Your task to perform on an android device: toggle notifications settings in the gmail app Image 0: 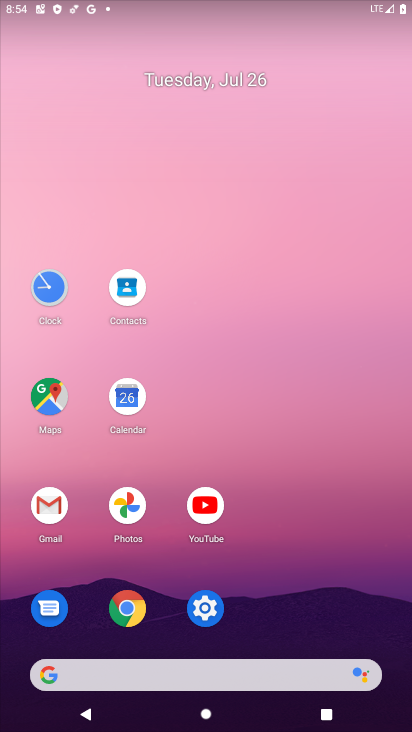
Step 0: click (45, 508)
Your task to perform on an android device: toggle notifications settings in the gmail app Image 1: 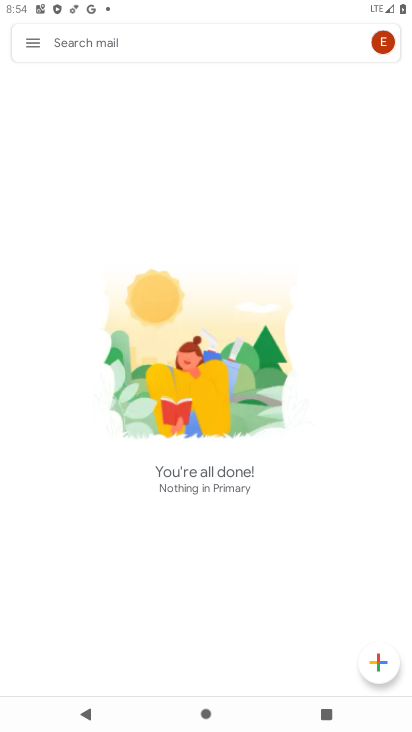
Step 1: click (39, 42)
Your task to perform on an android device: toggle notifications settings in the gmail app Image 2: 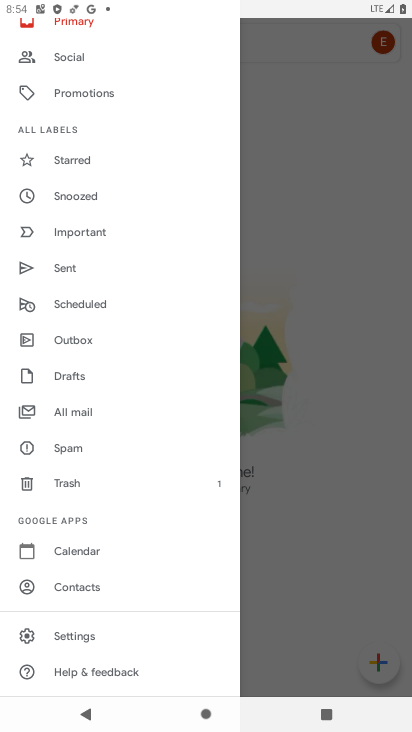
Step 2: click (67, 636)
Your task to perform on an android device: toggle notifications settings in the gmail app Image 3: 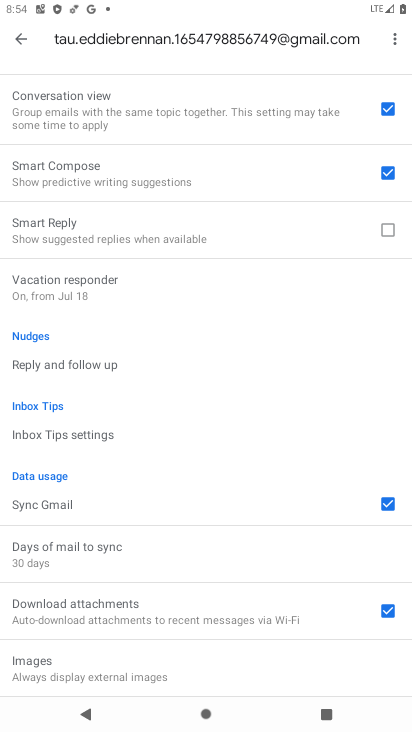
Step 3: click (18, 32)
Your task to perform on an android device: toggle notifications settings in the gmail app Image 4: 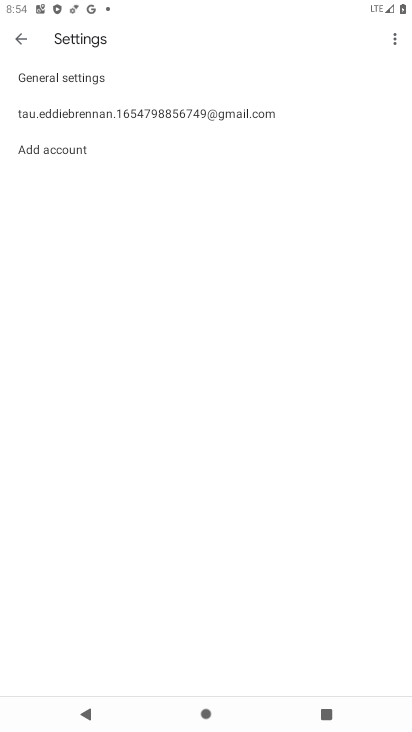
Step 4: click (75, 75)
Your task to perform on an android device: toggle notifications settings in the gmail app Image 5: 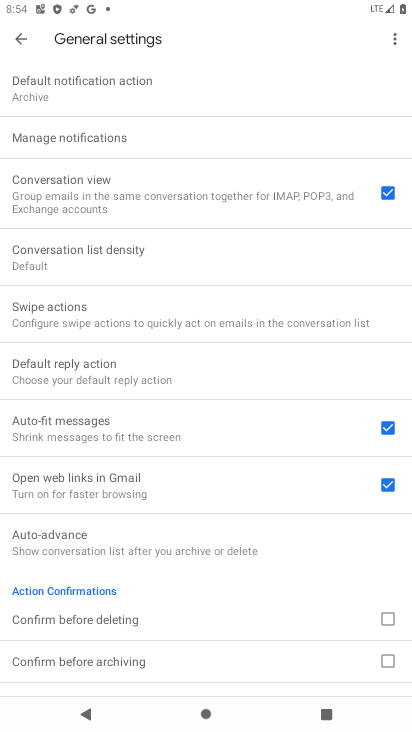
Step 5: click (71, 139)
Your task to perform on an android device: toggle notifications settings in the gmail app Image 6: 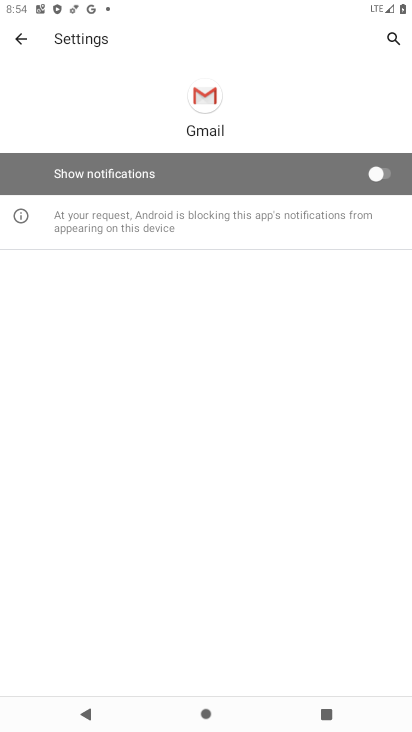
Step 6: click (375, 180)
Your task to perform on an android device: toggle notifications settings in the gmail app Image 7: 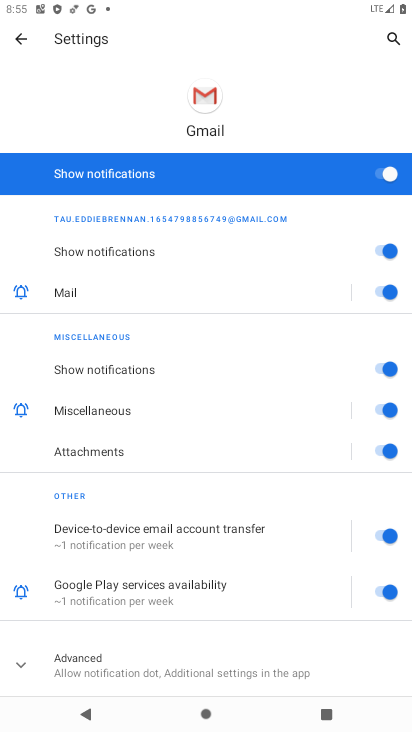
Step 7: task complete